Your task to perform on an android device: Open the phone app and click the voicemail tab. Image 0: 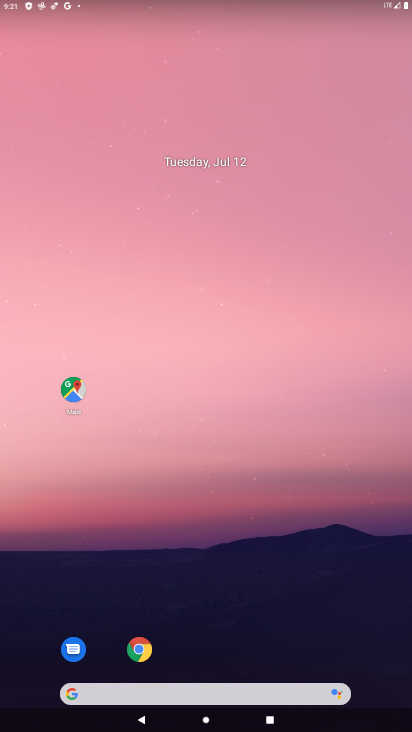
Step 0: drag from (319, 625) to (193, 106)
Your task to perform on an android device: Open the phone app and click the voicemail tab. Image 1: 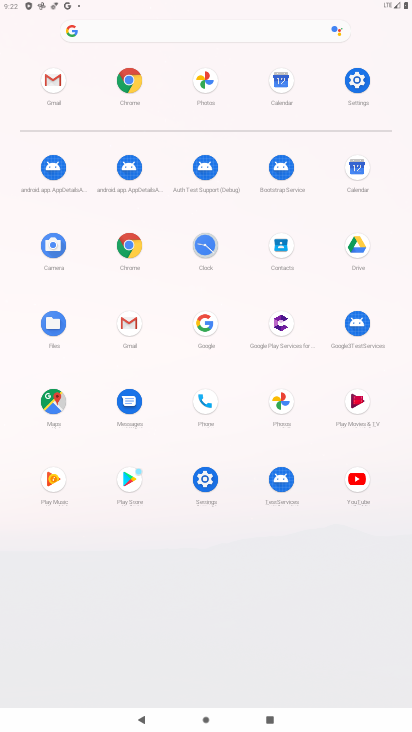
Step 1: click (197, 412)
Your task to perform on an android device: Open the phone app and click the voicemail tab. Image 2: 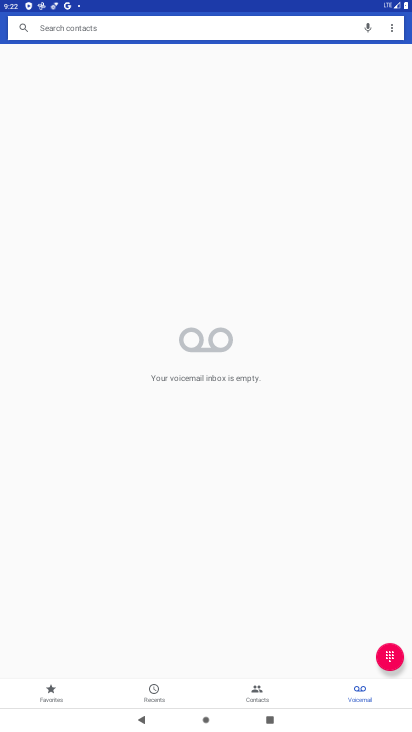
Step 2: click (347, 696)
Your task to perform on an android device: Open the phone app and click the voicemail tab. Image 3: 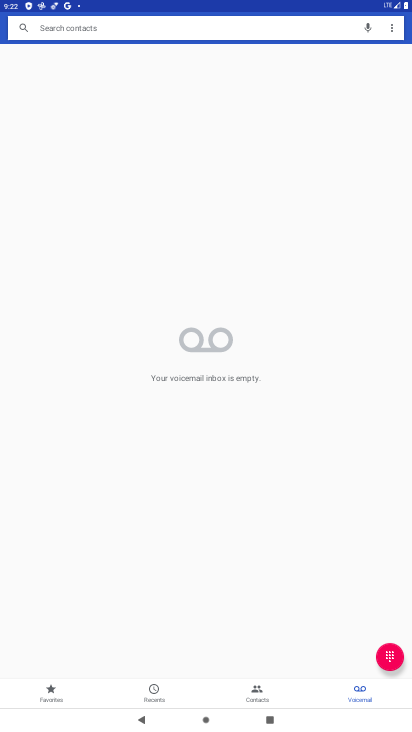
Step 3: task complete